Your task to perform on an android device: Open Youtube and go to the subscriptions tab Image 0: 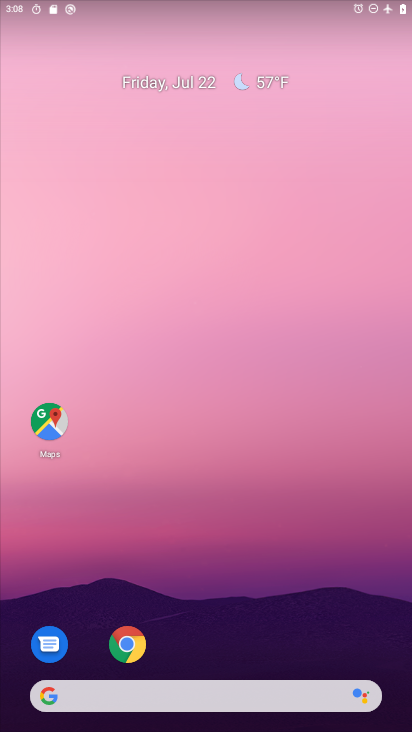
Step 0: drag from (219, 646) to (269, 231)
Your task to perform on an android device: Open Youtube and go to the subscriptions tab Image 1: 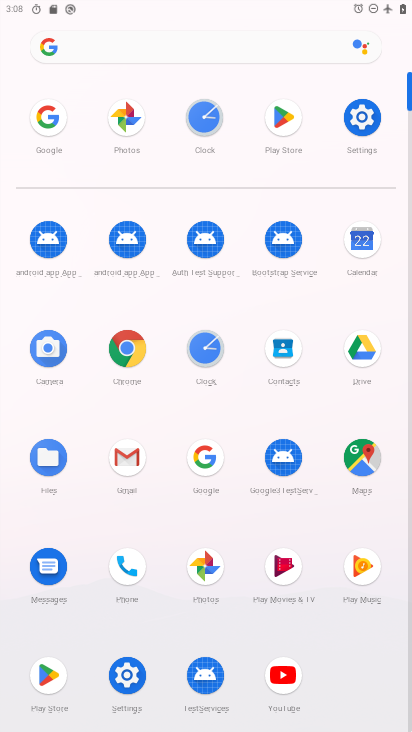
Step 1: click (288, 664)
Your task to perform on an android device: Open Youtube and go to the subscriptions tab Image 2: 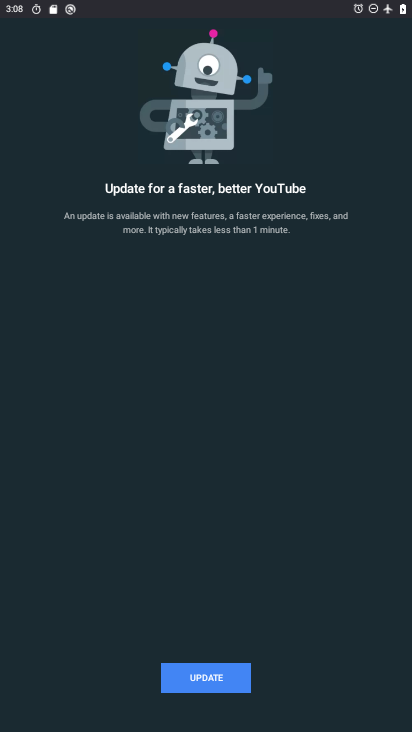
Step 2: click (180, 676)
Your task to perform on an android device: Open Youtube and go to the subscriptions tab Image 3: 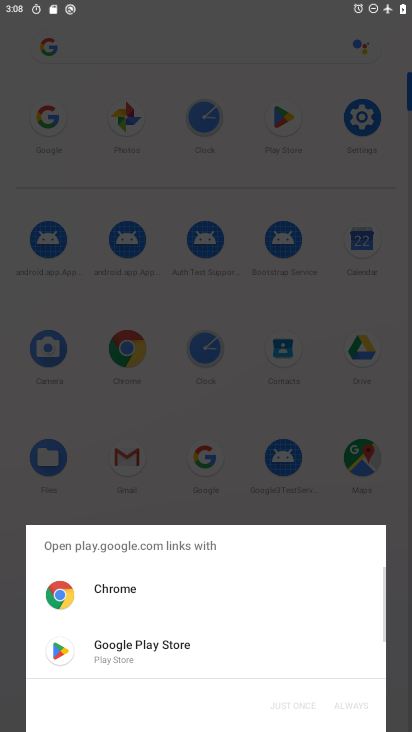
Step 3: click (141, 668)
Your task to perform on an android device: Open Youtube and go to the subscriptions tab Image 4: 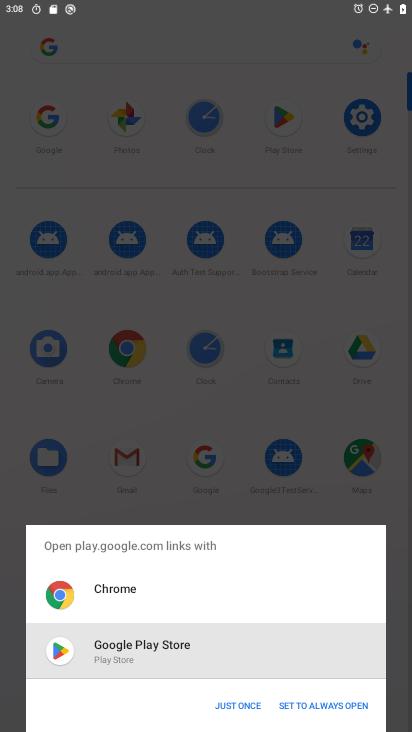
Step 4: click (237, 714)
Your task to perform on an android device: Open Youtube and go to the subscriptions tab Image 5: 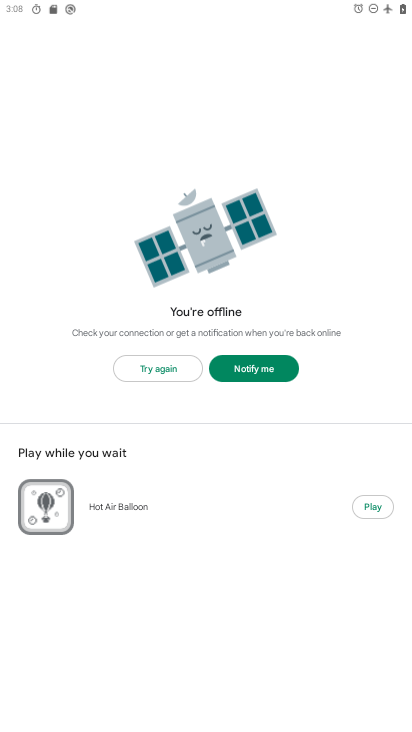
Step 5: task complete